Your task to perform on an android device: Open the calendar and show me this week's events? Image 0: 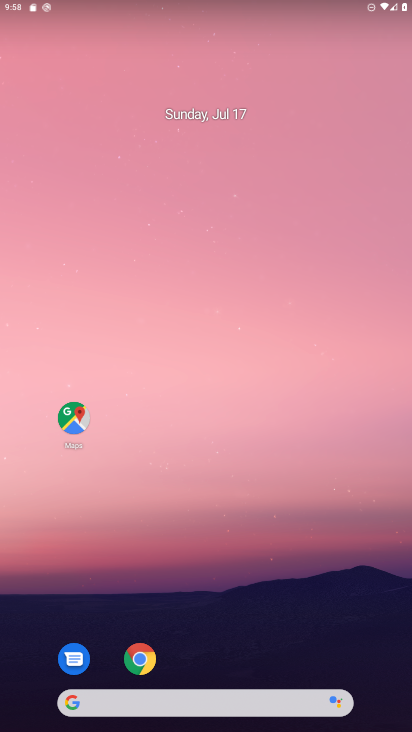
Step 0: drag from (252, 641) to (257, 13)
Your task to perform on an android device: Open the calendar and show me this week's events? Image 1: 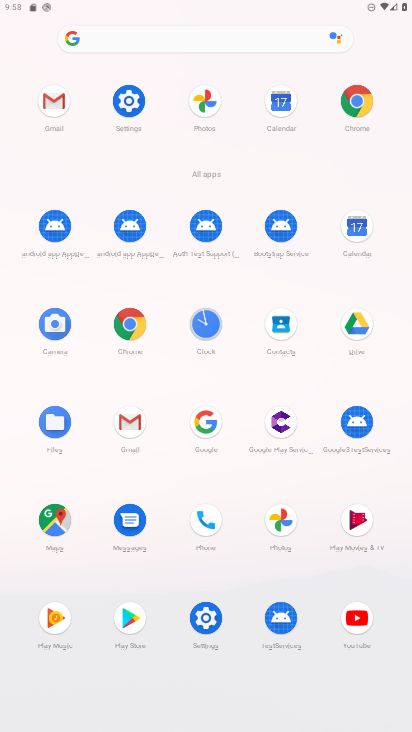
Step 1: click (356, 236)
Your task to perform on an android device: Open the calendar and show me this week's events? Image 2: 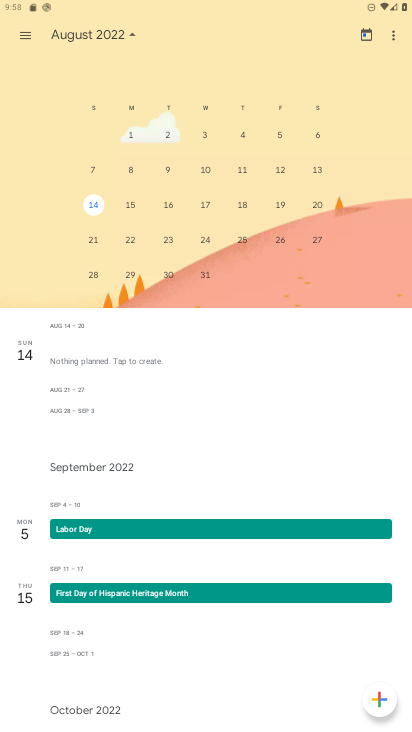
Step 2: drag from (58, 188) to (408, 147)
Your task to perform on an android device: Open the calendar and show me this week's events? Image 3: 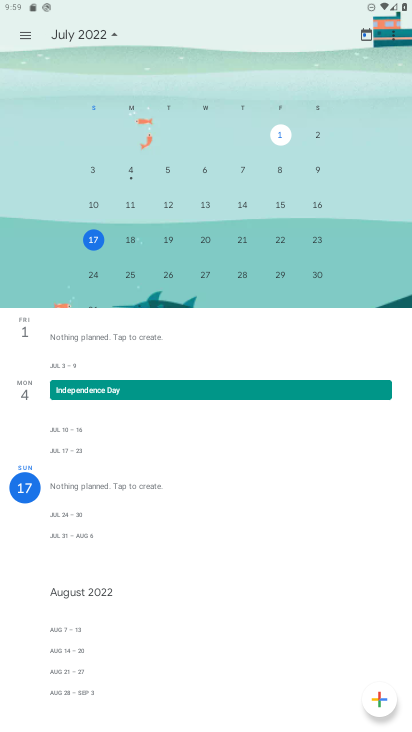
Step 3: click (87, 245)
Your task to perform on an android device: Open the calendar and show me this week's events? Image 4: 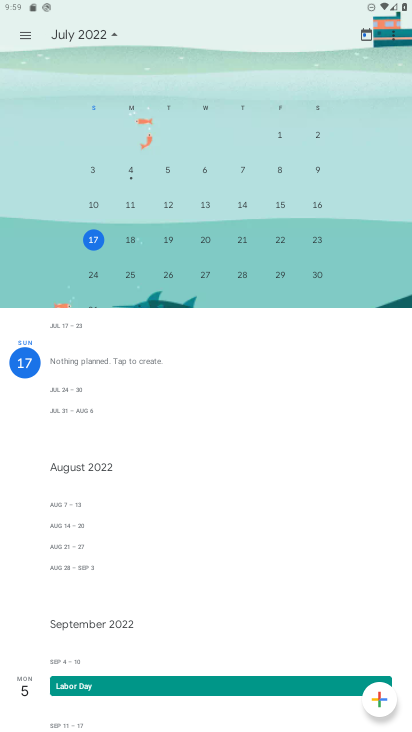
Step 4: click (140, 245)
Your task to perform on an android device: Open the calendar and show me this week's events? Image 5: 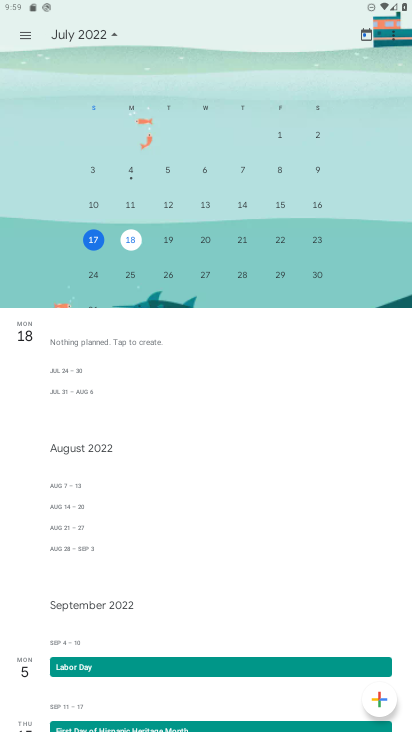
Step 5: click (175, 245)
Your task to perform on an android device: Open the calendar and show me this week's events? Image 6: 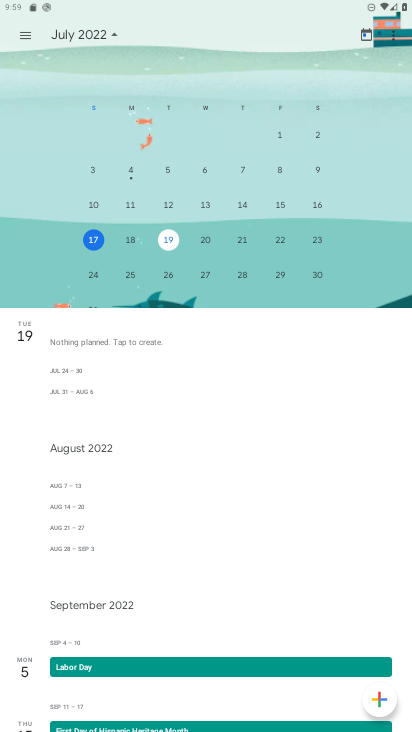
Step 6: click (206, 245)
Your task to perform on an android device: Open the calendar and show me this week's events? Image 7: 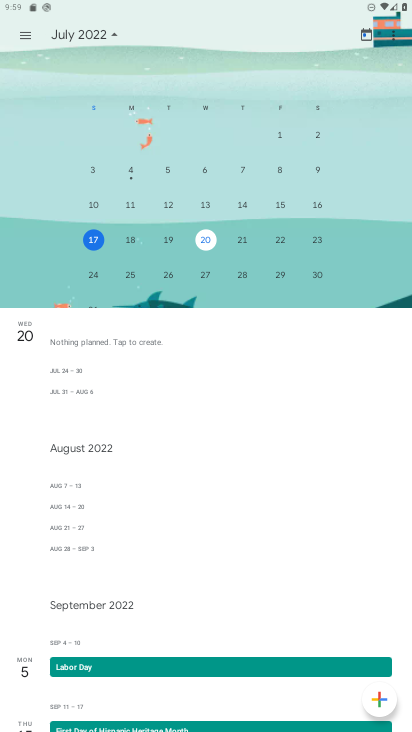
Step 7: click (250, 245)
Your task to perform on an android device: Open the calendar and show me this week's events? Image 8: 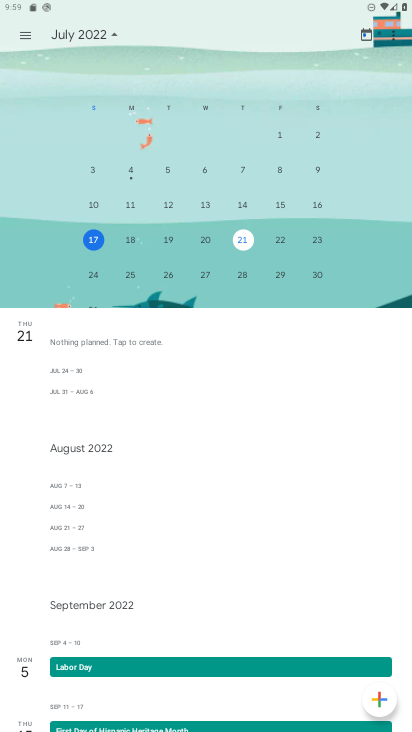
Step 8: click (282, 243)
Your task to perform on an android device: Open the calendar and show me this week's events? Image 9: 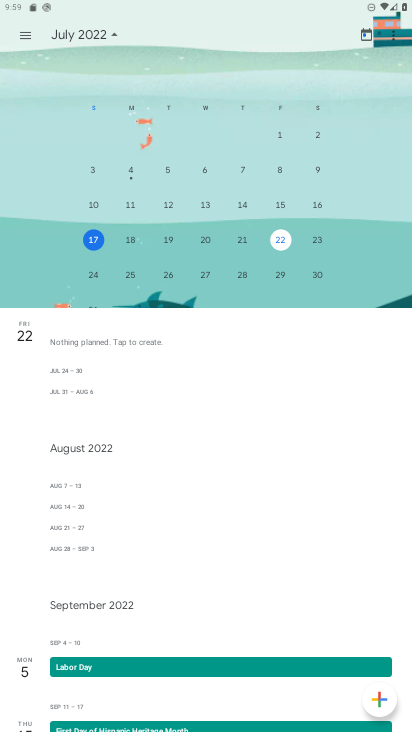
Step 9: click (319, 244)
Your task to perform on an android device: Open the calendar and show me this week's events? Image 10: 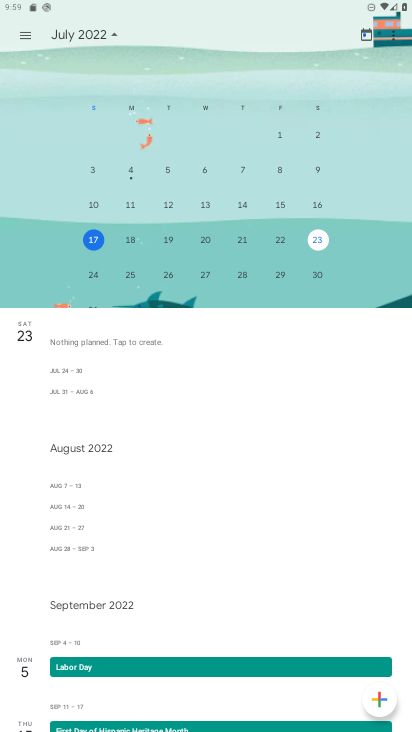
Step 10: task complete